Your task to perform on an android device: turn off smart reply in the gmail app Image 0: 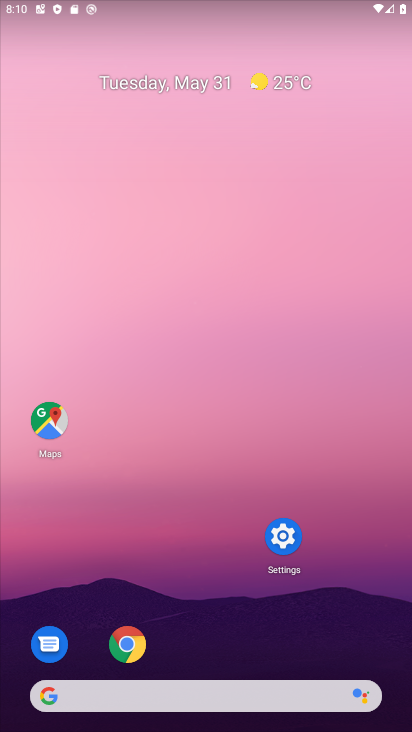
Step 0: press home button
Your task to perform on an android device: turn off smart reply in the gmail app Image 1: 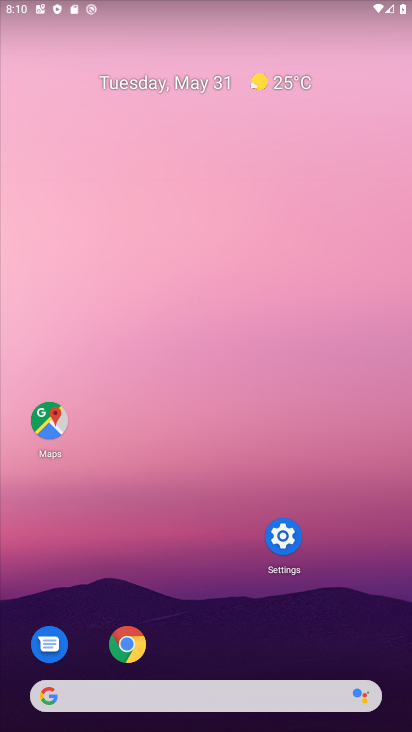
Step 1: drag from (287, 700) to (153, 169)
Your task to perform on an android device: turn off smart reply in the gmail app Image 2: 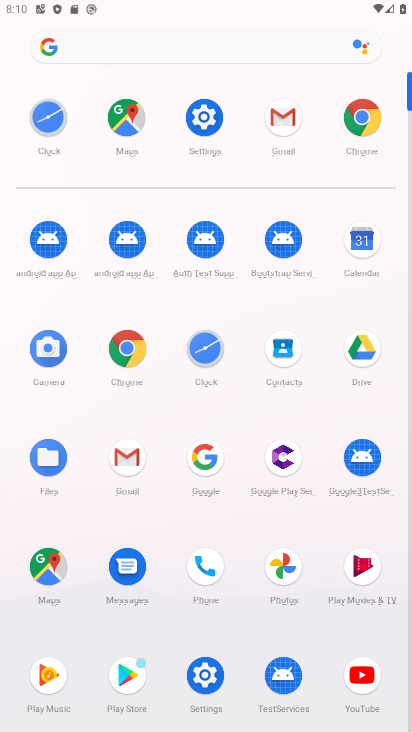
Step 2: click (128, 454)
Your task to perform on an android device: turn off smart reply in the gmail app Image 3: 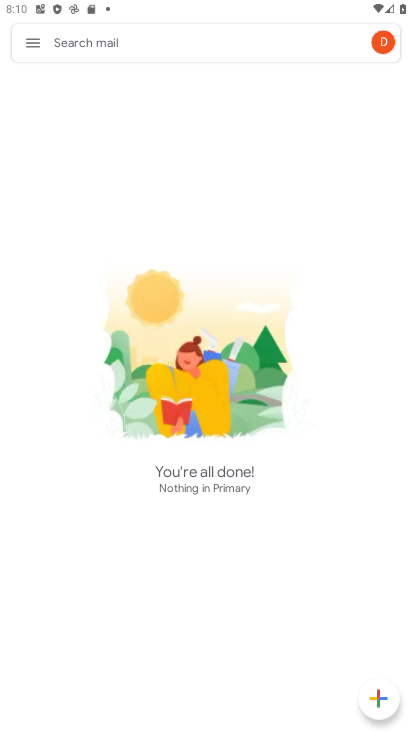
Step 3: click (28, 49)
Your task to perform on an android device: turn off smart reply in the gmail app Image 4: 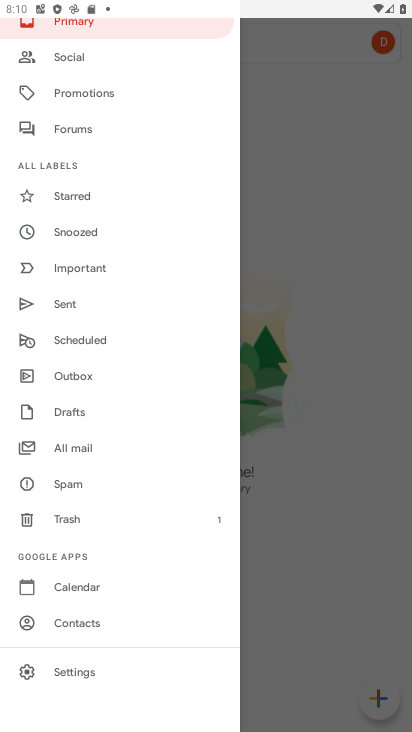
Step 4: click (77, 667)
Your task to perform on an android device: turn off smart reply in the gmail app Image 5: 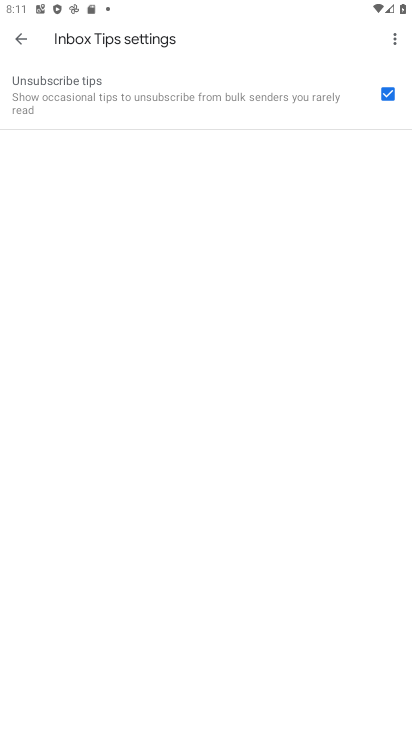
Step 5: click (26, 43)
Your task to perform on an android device: turn off smart reply in the gmail app Image 6: 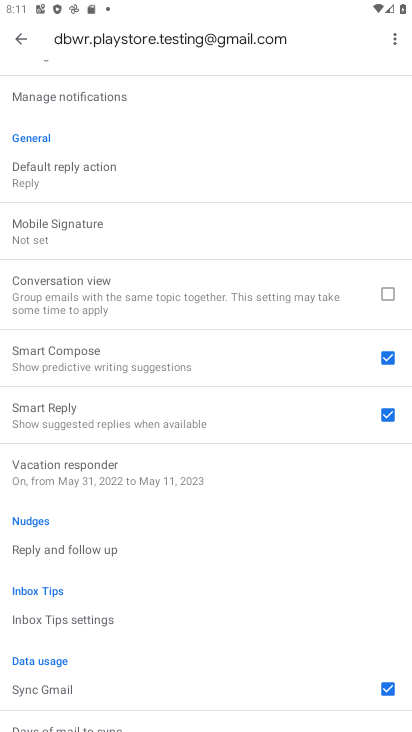
Step 6: click (388, 409)
Your task to perform on an android device: turn off smart reply in the gmail app Image 7: 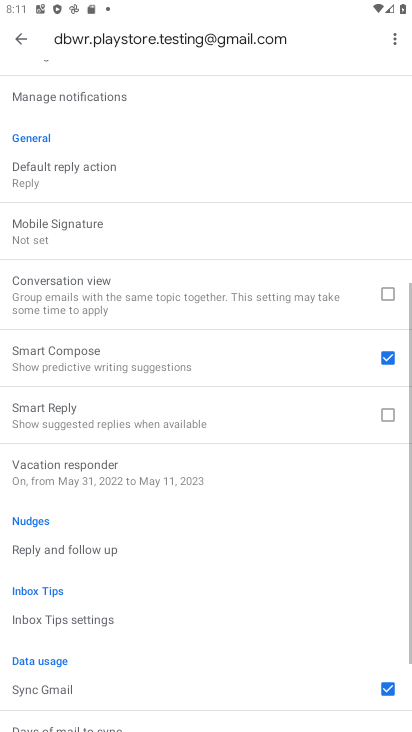
Step 7: task complete